Your task to perform on an android device: turn on sleep mode Image 0: 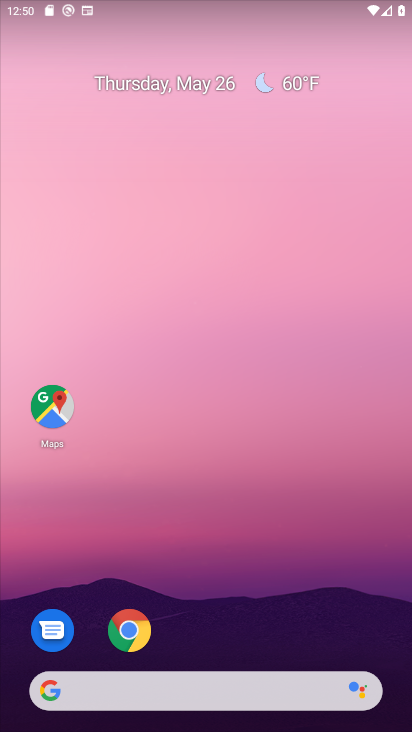
Step 0: drag from (284, 566) to (301, 177)
Your task to perform on an android device: turn on sleep mode Image 1: 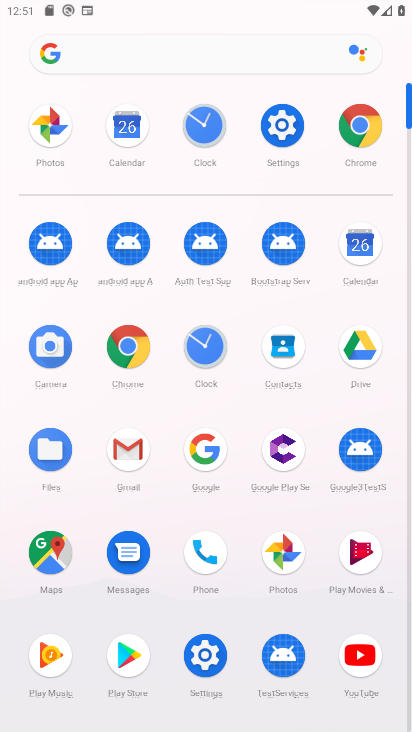
Step 1: click (284, 128)
Your task to perform on an android device: turn on sleep mode Image 2: 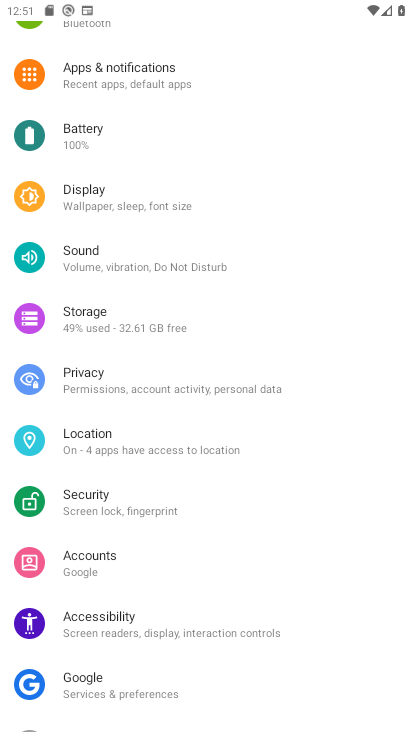
Step 2: drag from (260, 202) to (322, 661)
Your task to perform on an android device: turn on sleep mode Image 3: 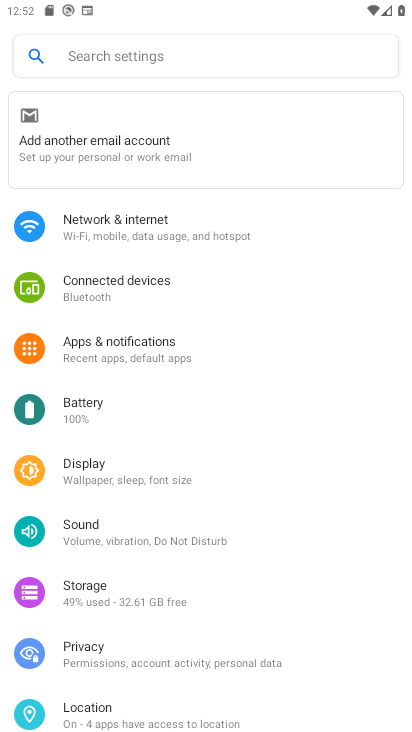
Step 3: click (131, 475)
Your task to perform on an android device: turn on sleep mode Image 4: 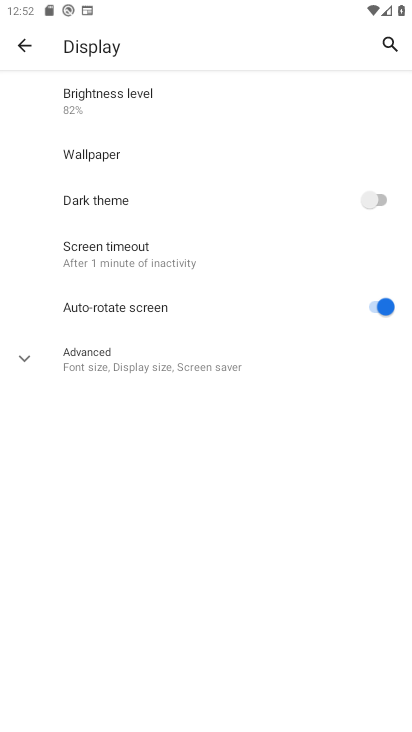
Step 4: click (70, 262)
Your task to perform on an android device: turn on sleep mode Image 5: 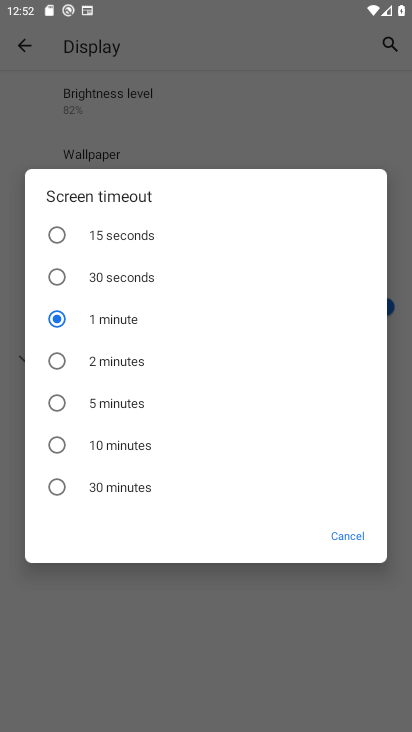
Step 5: task complete